Your task to perform on an android device: open app "Facebook" Image 0: 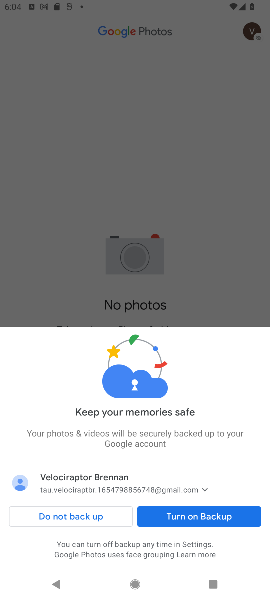
Step 0: press home button
Your task to perform on an android device: open app "Facebook" Image 1: 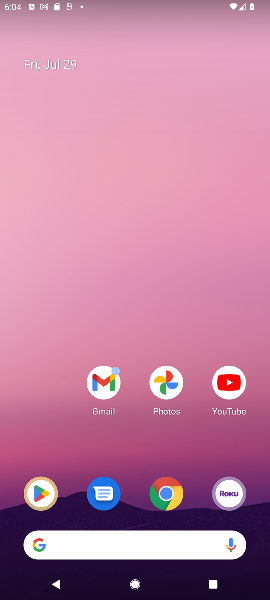
Step 1: drag from (157, 594) to (155, 102)
Your task to perform on an android device: open app "Facebook" Image 2: 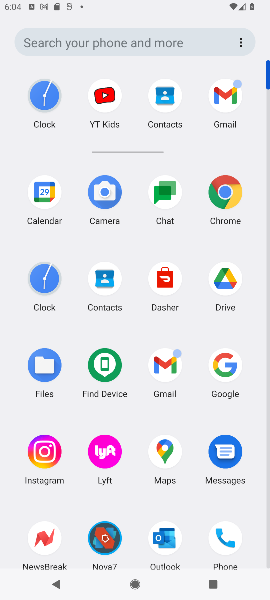
Step 2: drag from (187, 521) to (209, 235)
Your task to perform on an android device: open app "Facebook" Image 3: 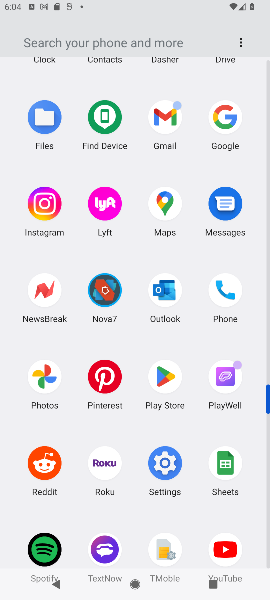
Step 3: drag from (189, 518) to (188, 214)
Your task to perform on an android device: open app "Facebook" Image 4: 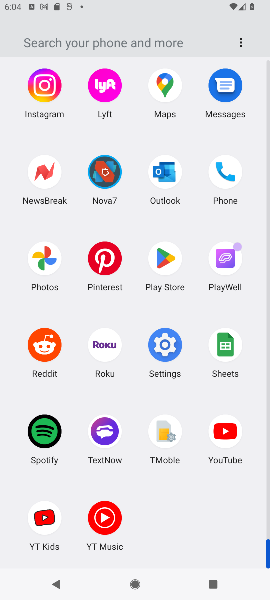
Step 4: drag from (193, 127) to (191, 394)
Your task to perform on an android device: open app "Facebook" Image 5: 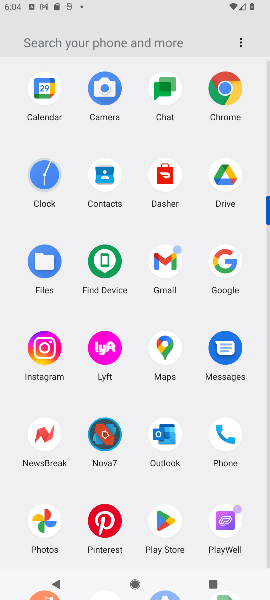
Step 5: drag from (184, 132) to (181, 427)
Your task to perform on an android device: open app "Facebook" Image 6: 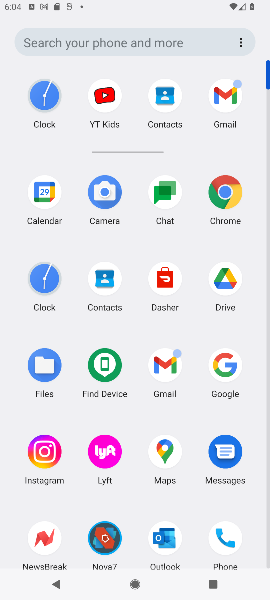
Step 6: drag from (190, 522) to (177, 148)
Your task to perform on an android device: open app "Facebook" Image 7: 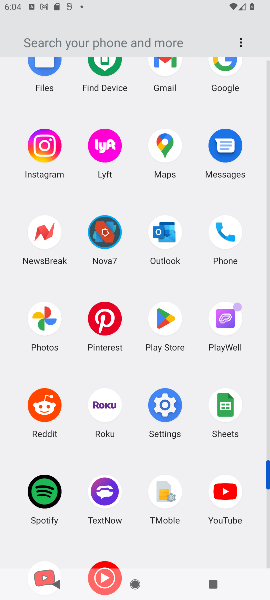
Step 7: click (165, 323)
Your task to perform on an android device: open app "Facebook" Image 8: 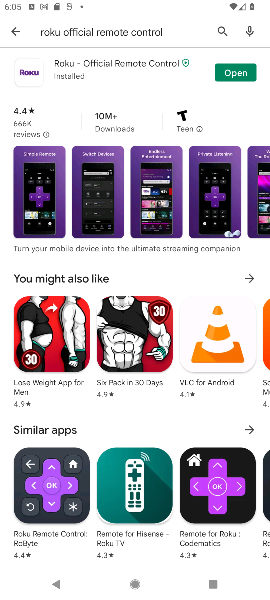
Step 8: click (221, 29)
Your task to perform on an android device: open app "Facebook" Image 9: 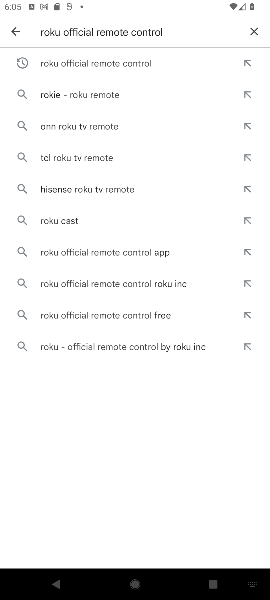
Step 9: click (255, 30)
Your task to perform on an android device: open app "Facebook" Image 10: 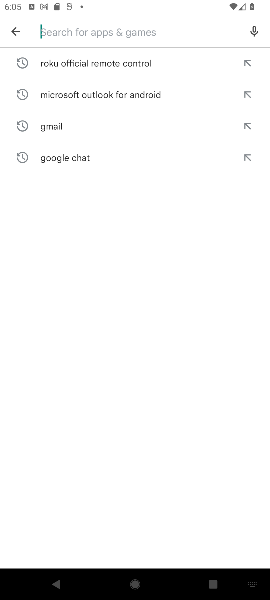
Step 10: type "Facebook"
Your task to perform on an android device: open app "Facebook" Image 11: 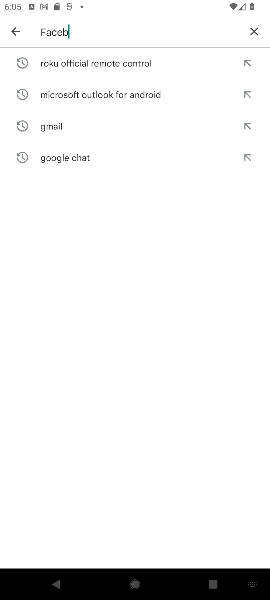
Step 11: type ""
Your task to perform on an android device: open app "Facebook" Image 12: 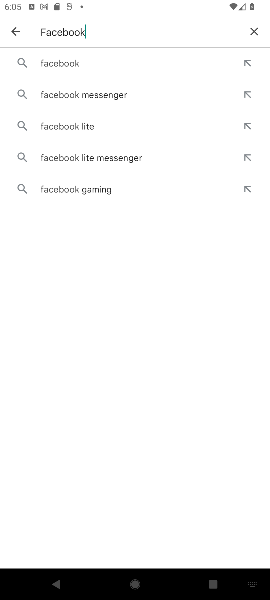
Step 12: click (50, 60)
Your task to perform on an android device: open app "Facebook" Image 13: 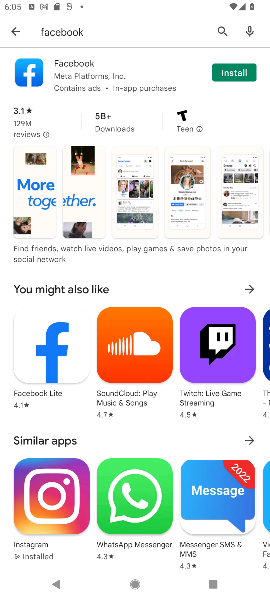
Step 13: task complete